Your task to perform on an android device: Open Reddit.com Image 0: 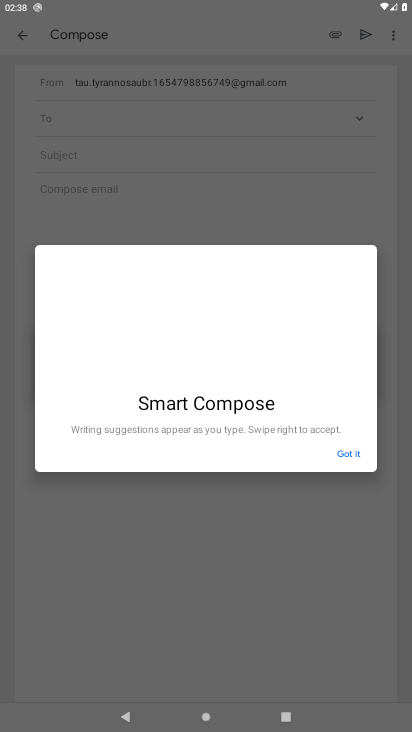
Step 0: press home button
Your task to perform on an android device: Open Reddit.com Image 1: 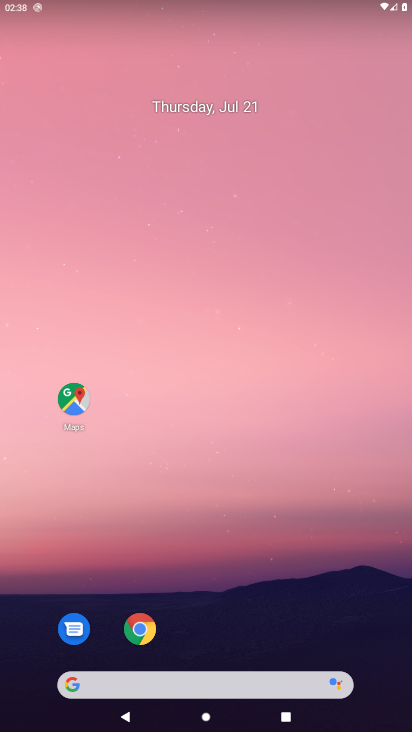
Step 1: click (102, 681)
Your task to perform on an android device: Open Reddit.com Image 2: 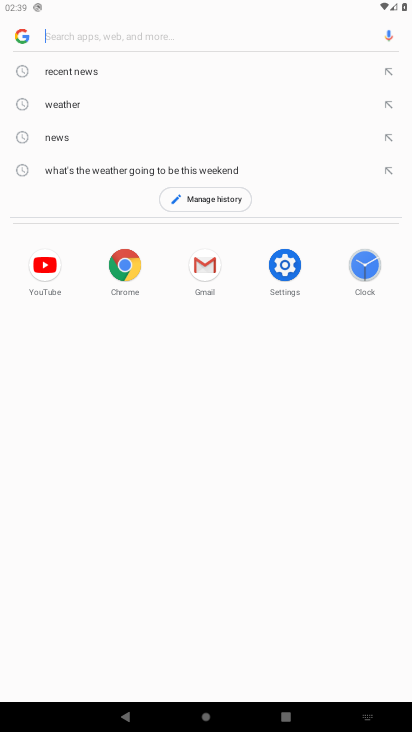
Step 2: type "Reddit.com"
Your task to perform on an android device: Open Reddit.com Image 3: 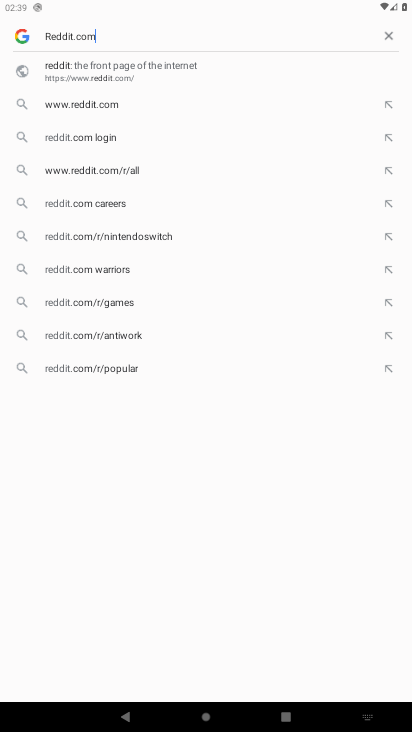
Step 3: type ""
Your task to perform on an android device: Open Reddit.com Image 4: 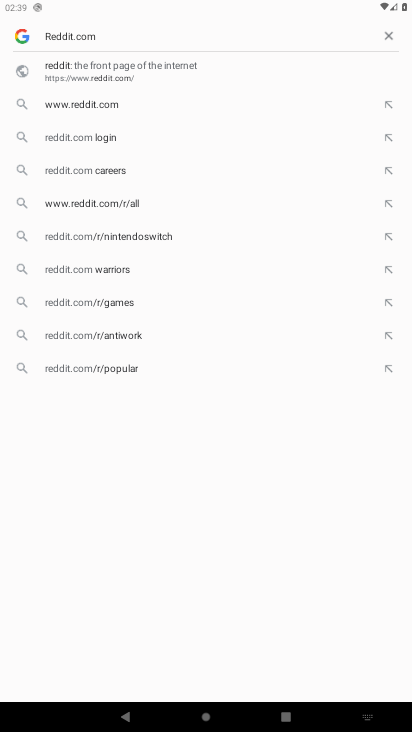
Step 4: type ""
Your task to perform on an android device: Open Reddit.com Image 5: 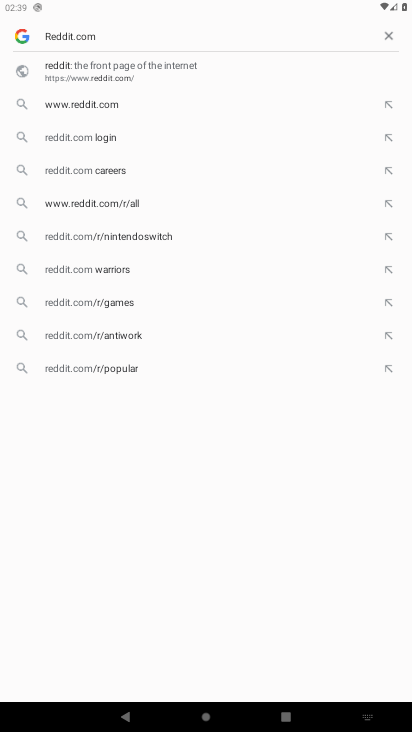
Step 5: type ""
Your task to perform on an android device: Open Reddit.com Image 6: 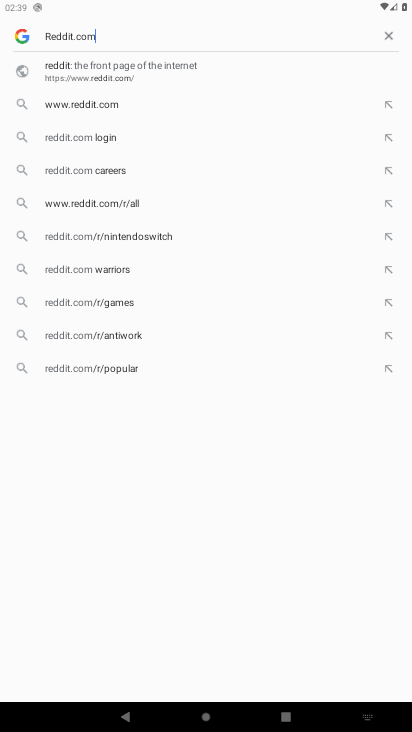
Step 6: task complete